Your task to perform on an android device: check storage Image 0: 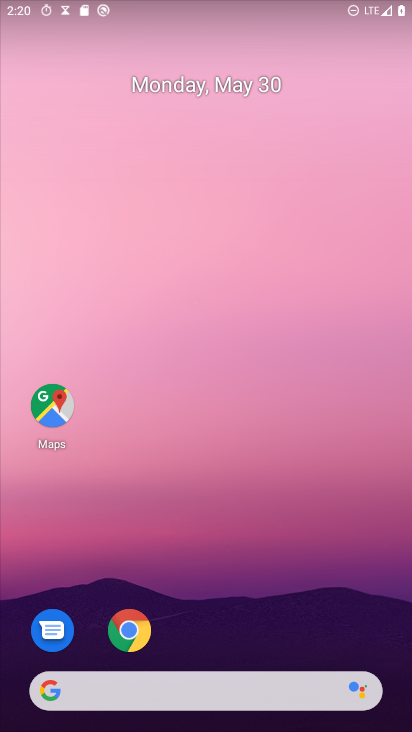
Step 0: drag from (264, 701) to (166, 83)
Your task to perform on an android device: check storage Image 1: 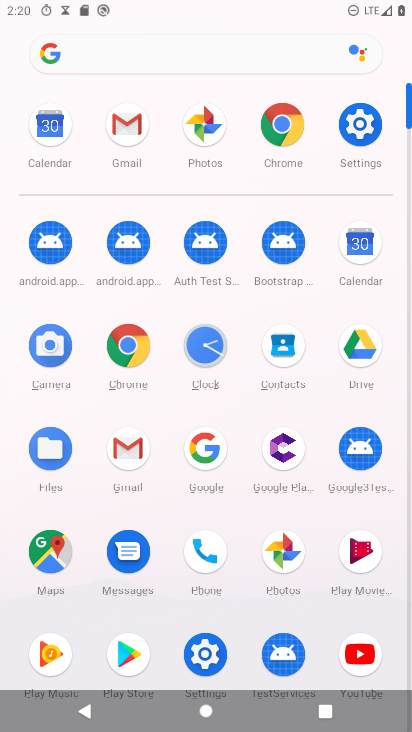
Step 1: click (140, 49)
Your task to perform on an android device: check storage Image 2: 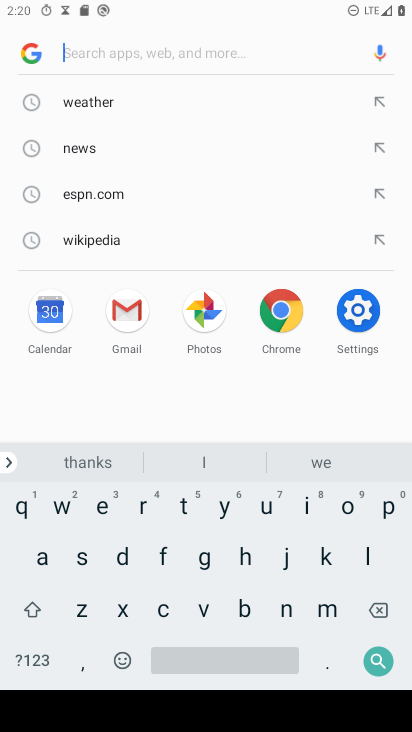
Step 2: click (342, 316)
Your task to perform on an android device: check storage Image 3: 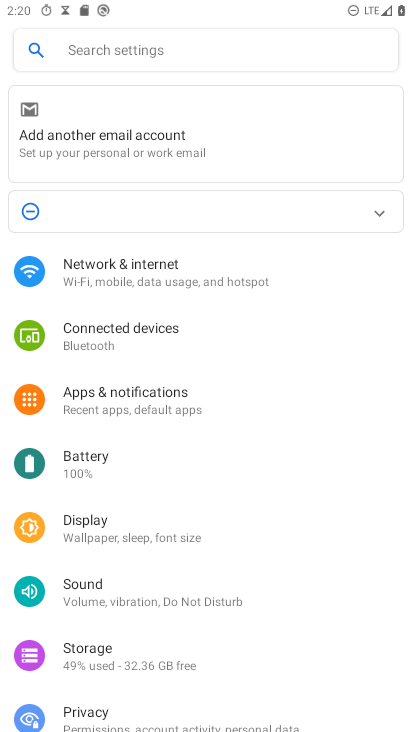
Step 3: click (104, 48)
Your task to perform on an android device: check storage Image 4: 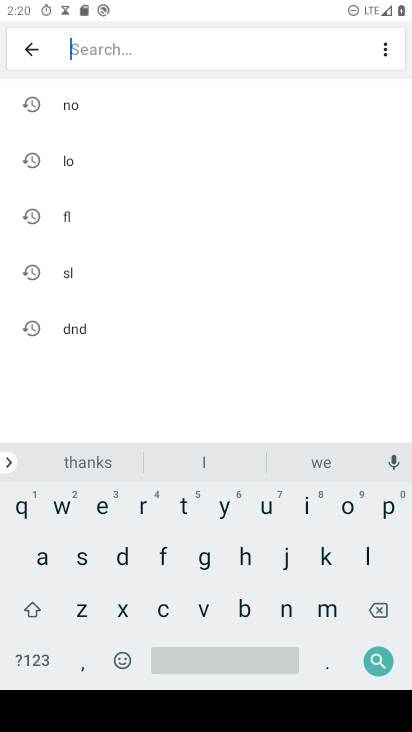
Step 4: click (74, 554)
Your task to perform on an android device: check storage Image 5: 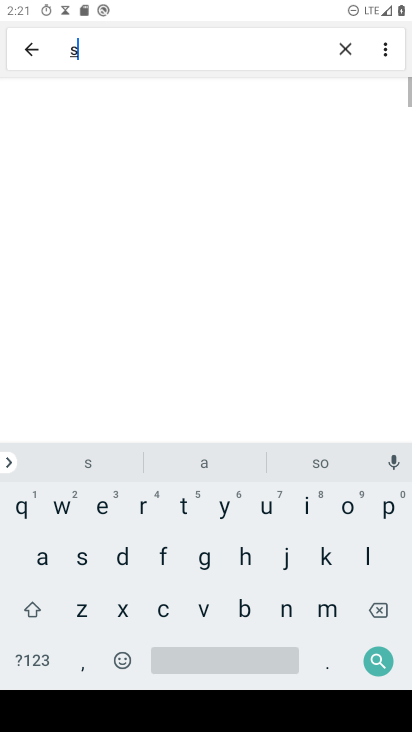
Step 5: click (182, 501)
Your task to perform on an android device: check storage Image 6: 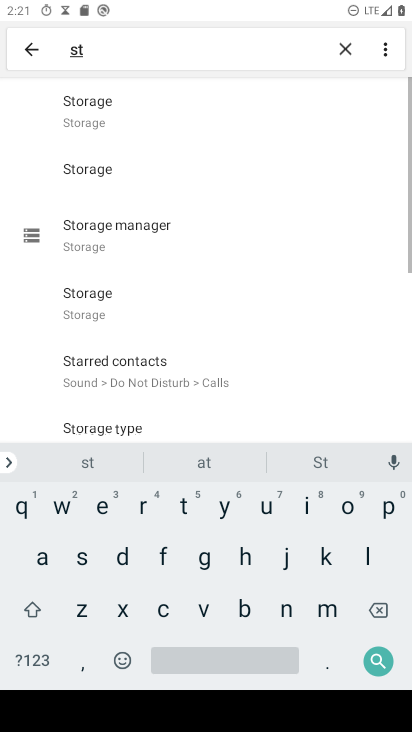
Step 6: click (126, 95)
Your task to perform on an android device: check storage Image 7: 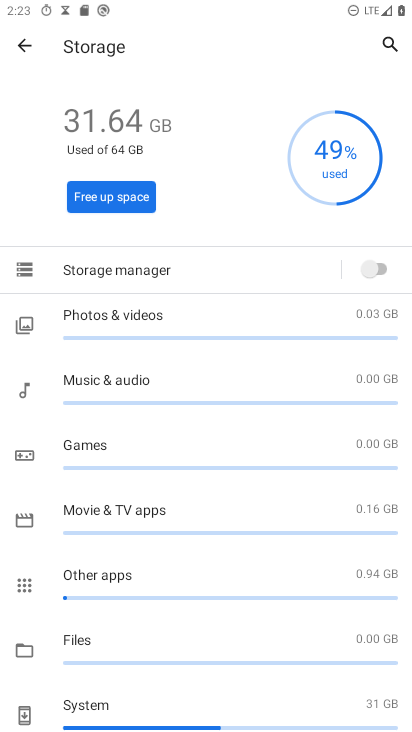
Step 7: task complete